Your task to perform on an android device: open app "Chime – Mobile Banking" (install if not already installed), go to login, and select forgot password Image 0: 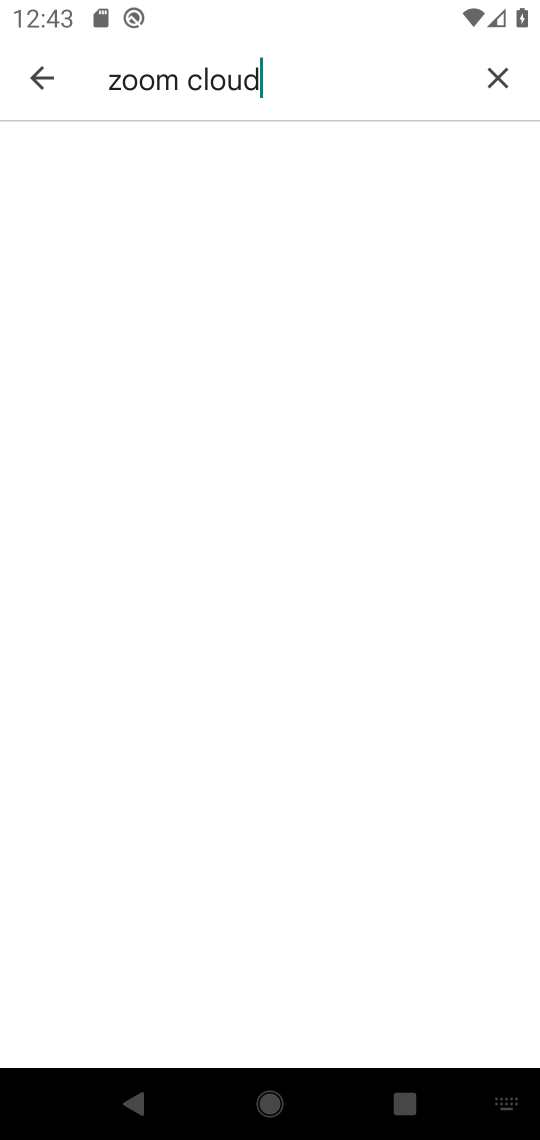
Step 0: click (511, 61)
Your task to perform on an android device: open app "Chime – Mobile Banking" (install if not already installed), go to login, and select forgot password Image 1: 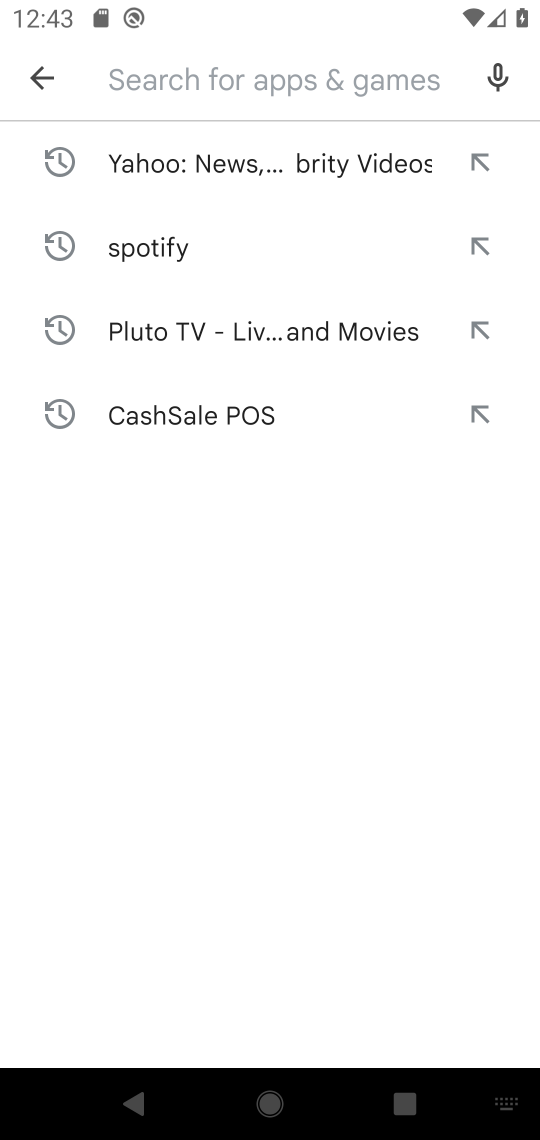
Step 1: type "chime"
Your task to perform on an android device: open app "Chime – Mobile Banking" (install if not already installed), go to login, and select forgot password Image 2: 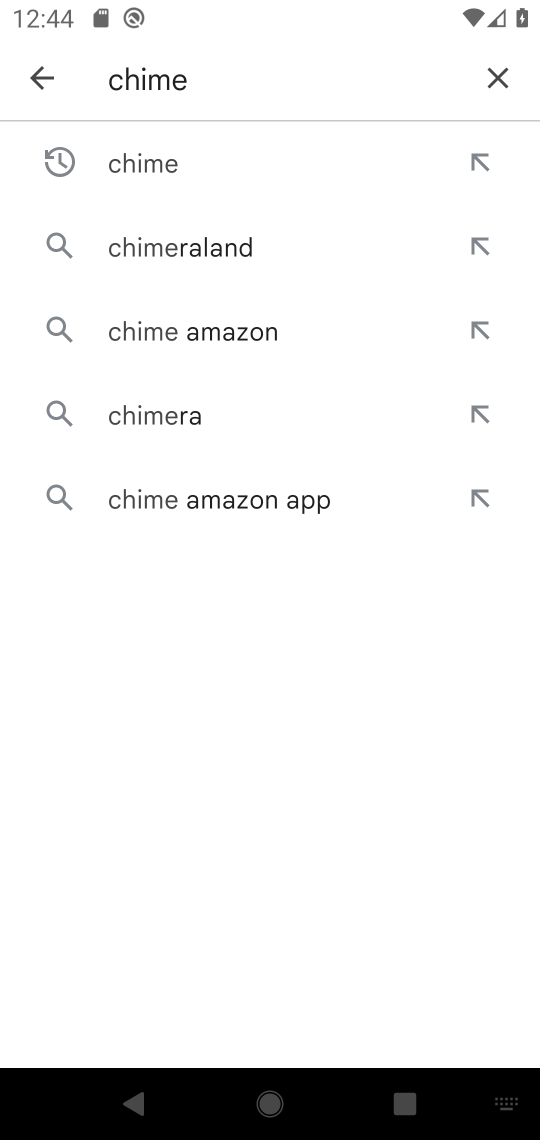
Step 2: click (214, 138)
Your task to perform on an android device: open app "Chime – Mobile Banking" (install if not already installed), go to login, and select forgot password Image 3: 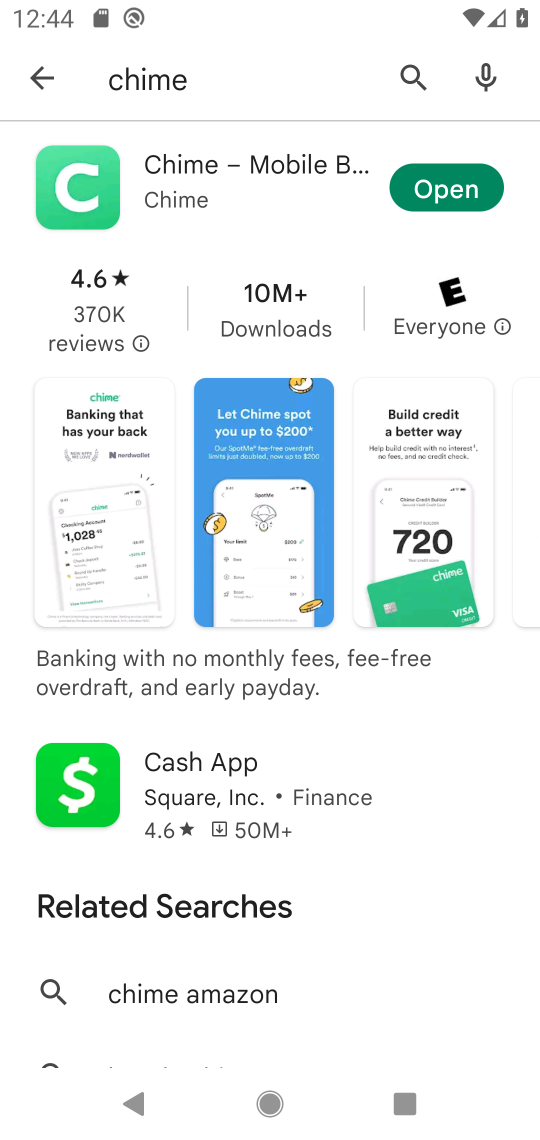
Step 3: click (424, 175)
Your task to perform on an android device: open app "Chime – Mobile Banking" (install if not already installed), go to login, and select forgot password Image 4: 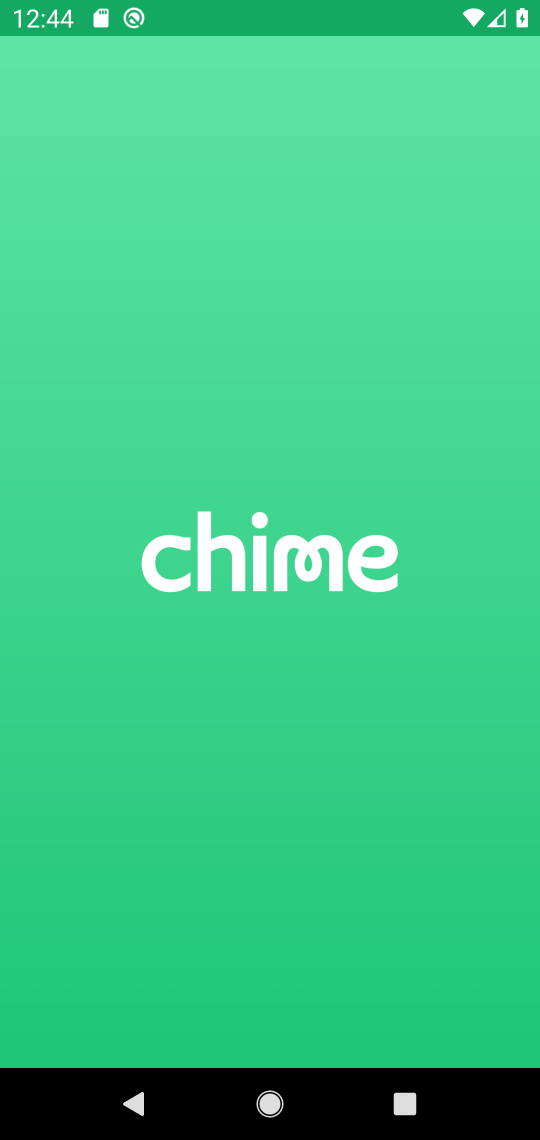
Step 4: task complete